Your task to perform on an android device: find which apps use the phone's location Image 0: 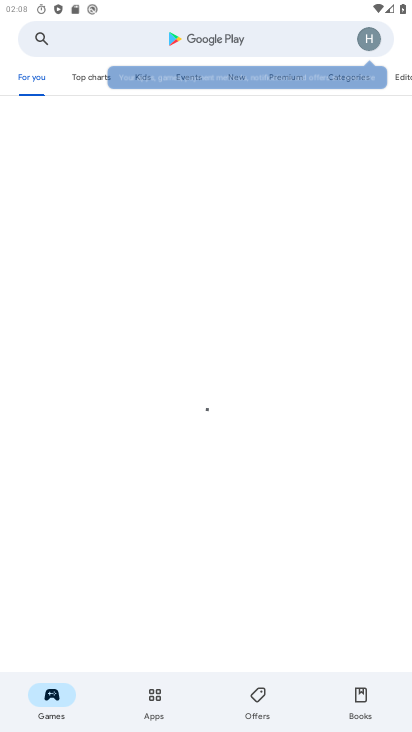
Step 0: press back button
Your task to perform on an android device: find which apps use the phone's location Image 1: 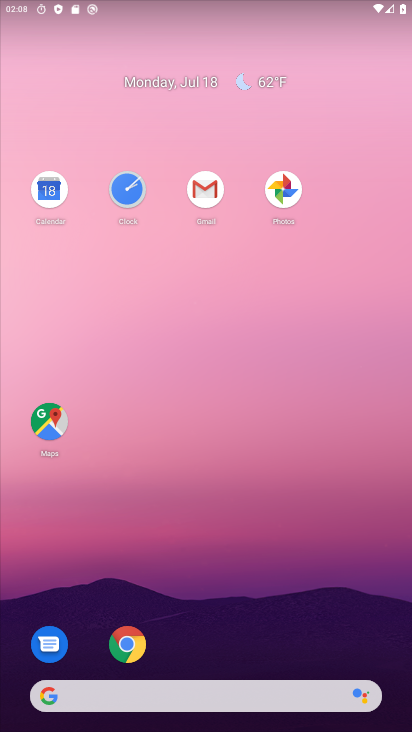
Step 1: drag from (212, 626) to (241, 215)
Your task to perform on an android device: find which apps use the phone's location Image 2: 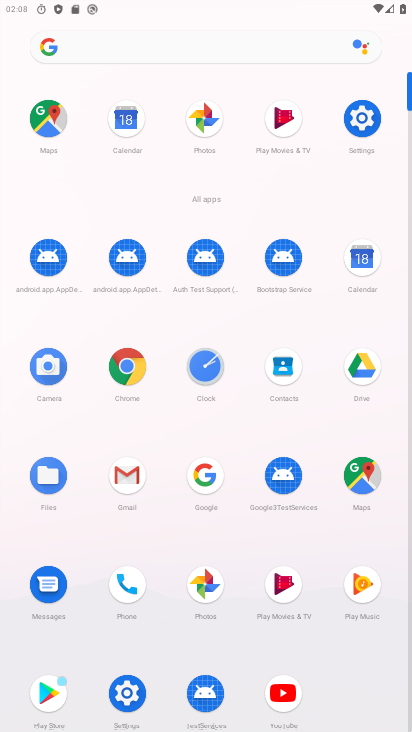
Step 2: drag from (376, 118) to (89, 303)
Your task to perform on an android device: find which apps use the phone's location Image 3: 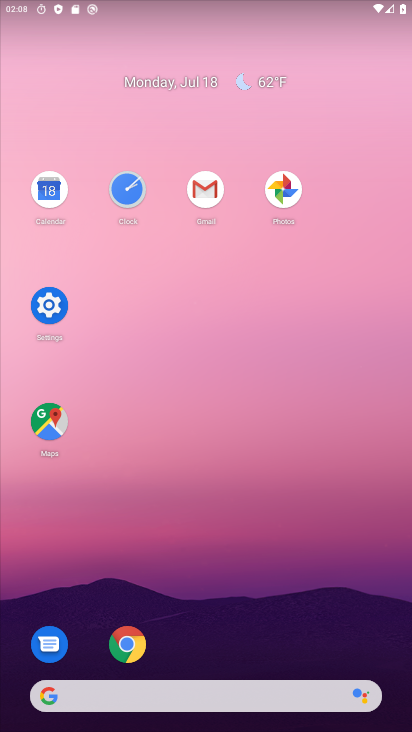
Step 3: click (67, 296)
Your task to perform on an android device: find which apps use the phone's location Image 4: 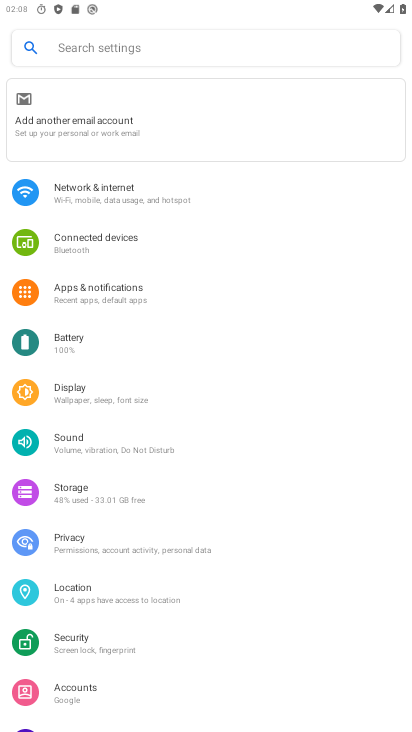
Step 4: click (124, 604)
Your task to perform on an android device: find which apps use the phone's location Image 5: 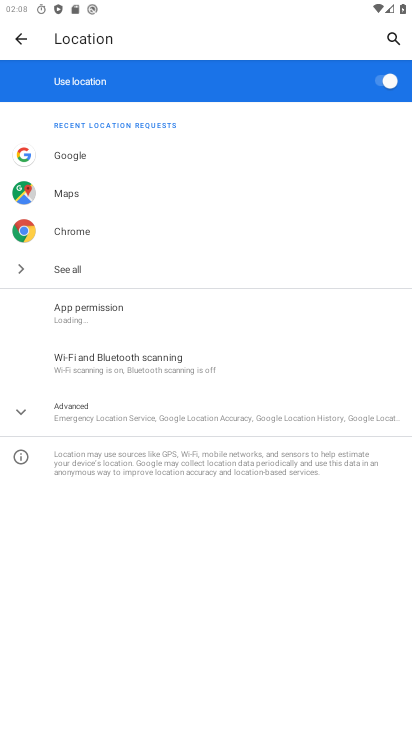
Step 5: task complete